Your task to perform on an android device: Open the stopwatch Image 0: 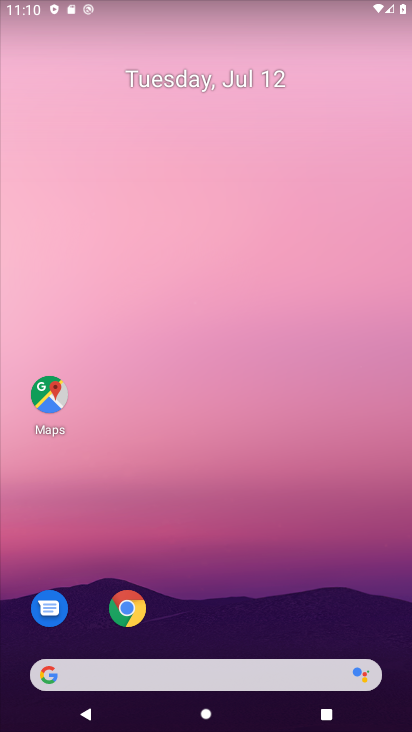
Step 0: drag from (248, 728) to (248, 192)
Your task to perform on an android device: Open the stopwatch Image 1: 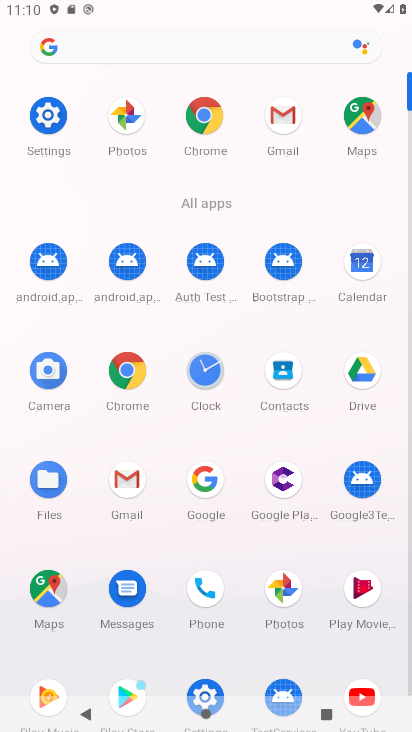
Step 1: click (211, 376)
Your task to perform on an android device: Open the stopwatch Image 2: 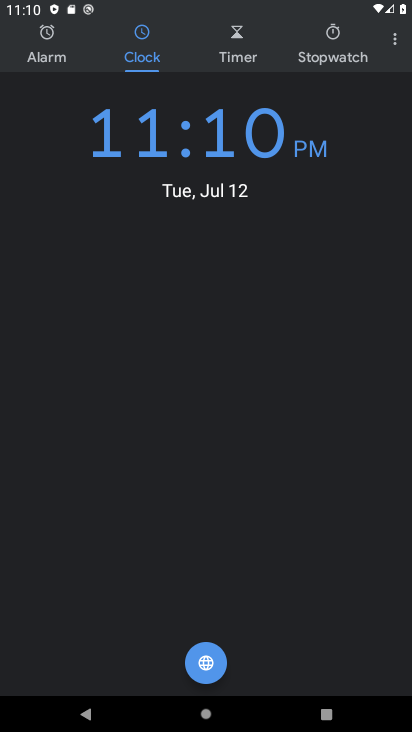
Step 2: click (337, 33)
Your task to perform on an android device: Open the stopwatch Image 3: 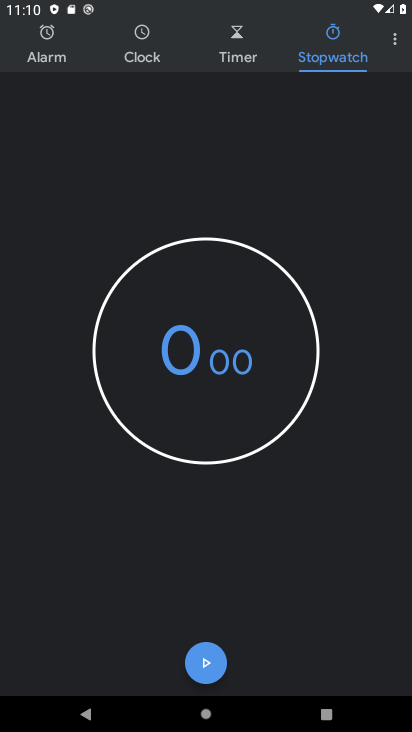
Step 3: task complete